Your task to perform on an android device: Go to Amazon Image 0: 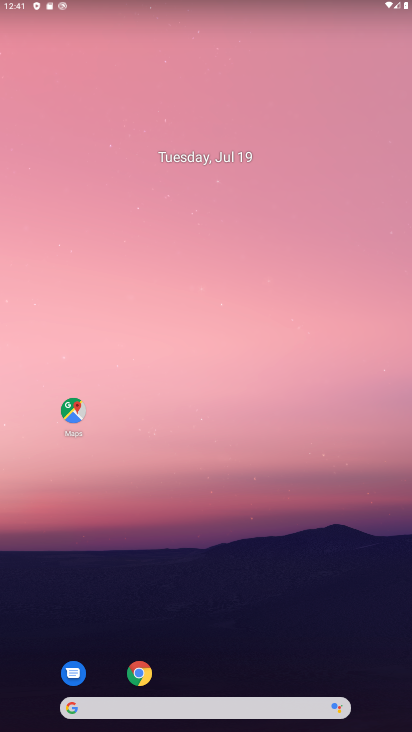
Step 0: drag from (194, 628) to (217, 172)
Your task to perform on an android device: Go to Amazon Image 1: 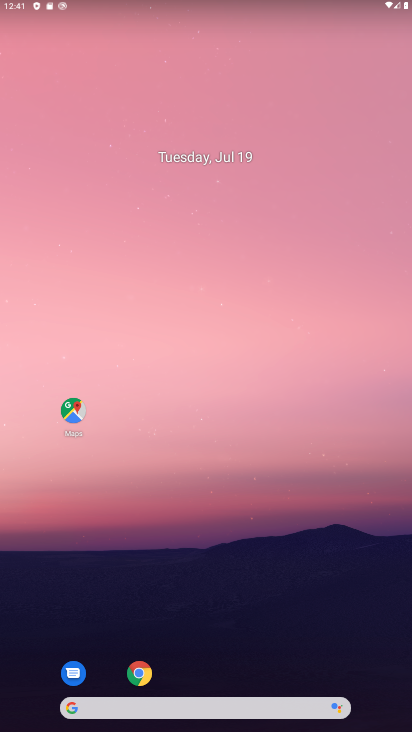
Step 1: drag from (233, 654) to (223, 266)
Your task to perform on an android device: Go to Amazon Image 2: 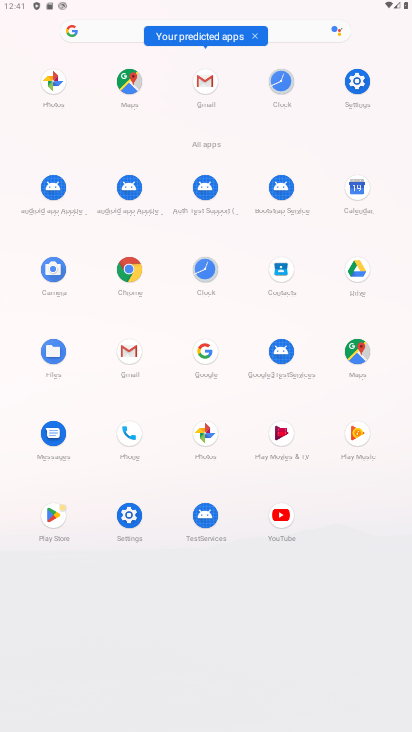
Step 2: click (127, 271)
Your task to perform on an android device: Go to Amazon Image 3: 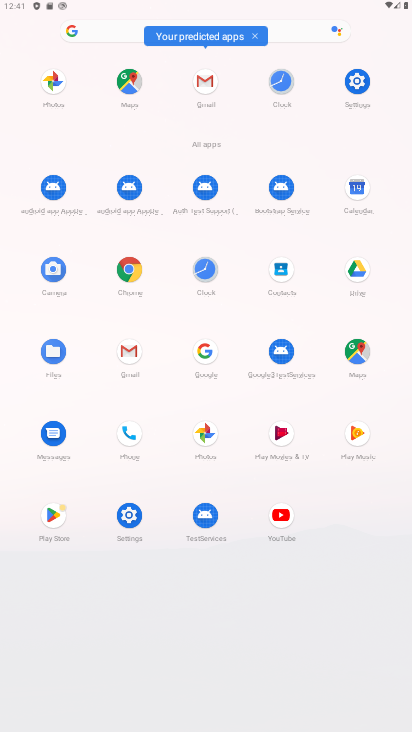
Step 3: click (123, 270)
Your task to perform on an android device: Go to Amazon Image 4: 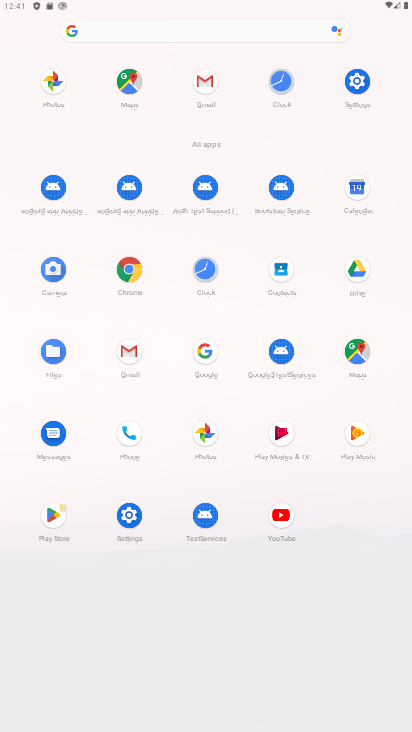
Step 4: click (123, 269)
Your task to perform on an android device: Go to Amazon Image 5: 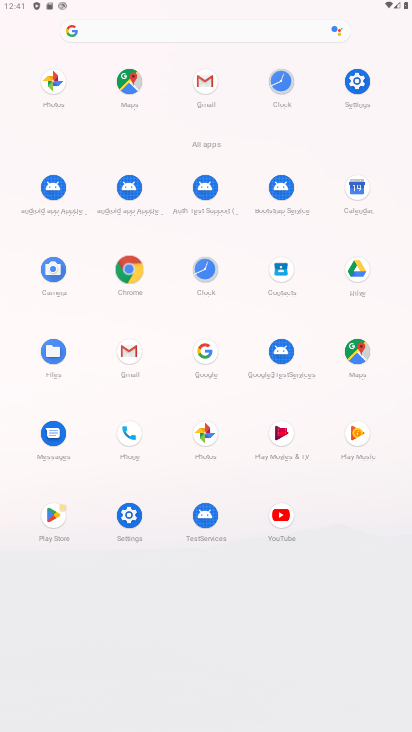
Step 5: click (125, 271)
Your task to perform on an android device: Go to Amazon Image 6: 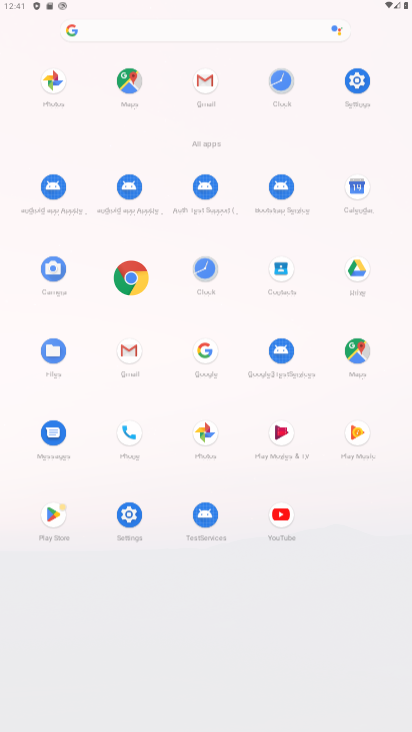
Step 6: click (125, 271)
Your task to perform on an android device: Go to Amazon Image 7: 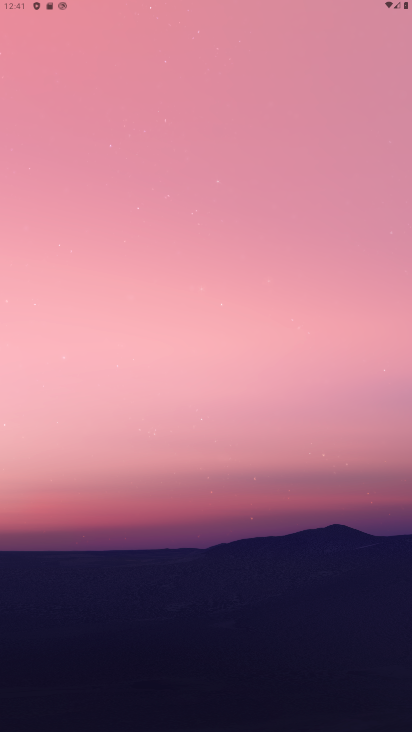
Step 7: click (128, 274)
Your task to perform on an android device: Go to Amazon Image 8: 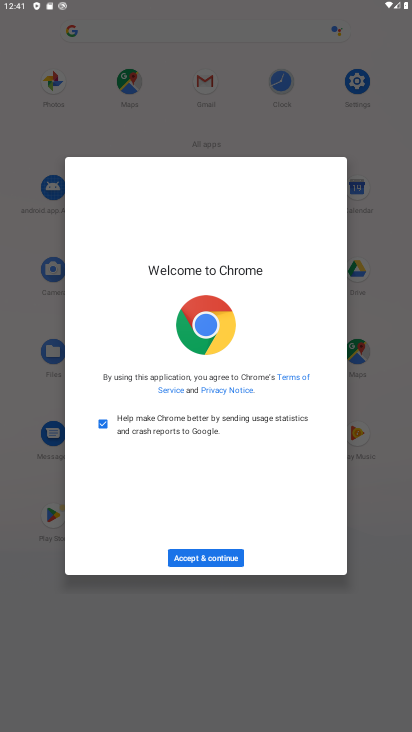
Step 8: click (204, 553)
Your task to perform on an android device: Go to Amazon Image 9: 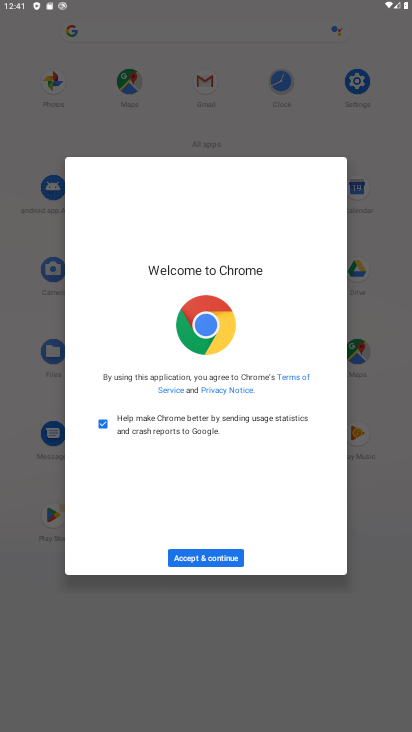
Step 9: click (209, 557)
Your task to perform on an android device: Go to Amazon Image 10: 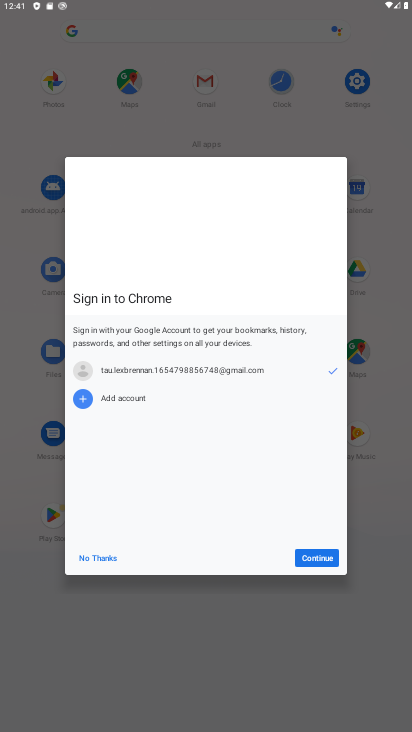
Step 10: click (215, 563)
Your task to perform on an android device: Go to Amazon Image 11: 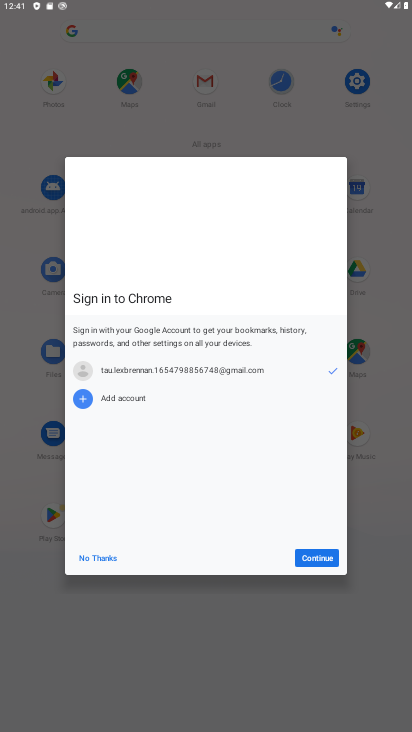
Step 11: click (215, 563)
Your task to perform on an android device: Go to Amazon Image 12: 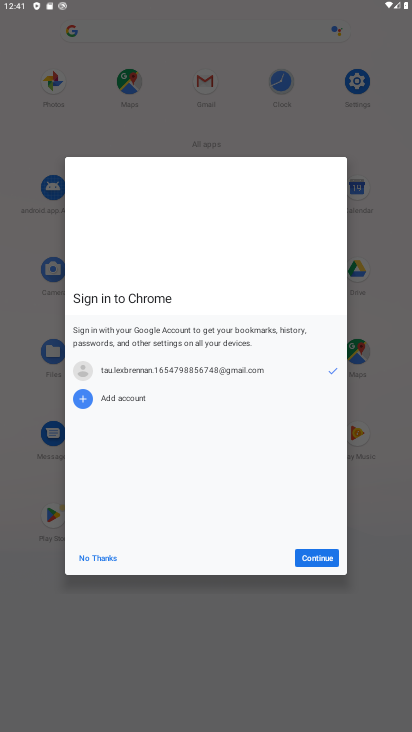
Step 12: click (229, 559)
Your task to perform on an android device: Go to Amazon Image 13: 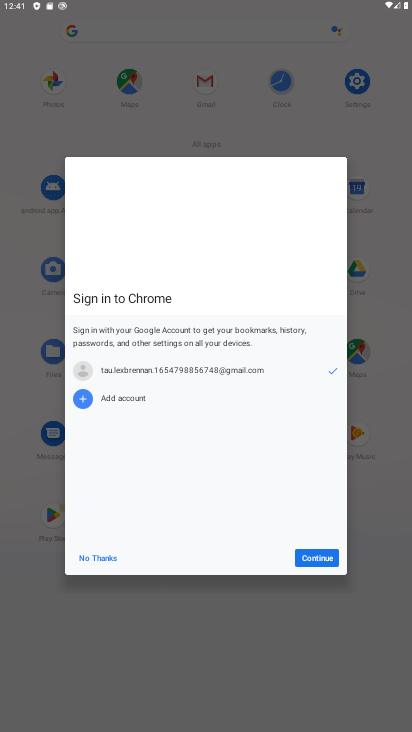
Step 13: click (320, 555)
Your task to perform on an android device: Go to Amazon Image 14: 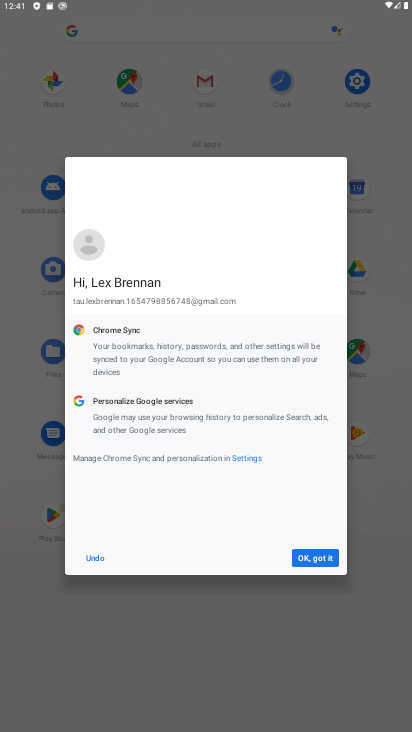
Step 14: click (322, 557)
Your task to perform on an android device: Go to Amazon Image 15: 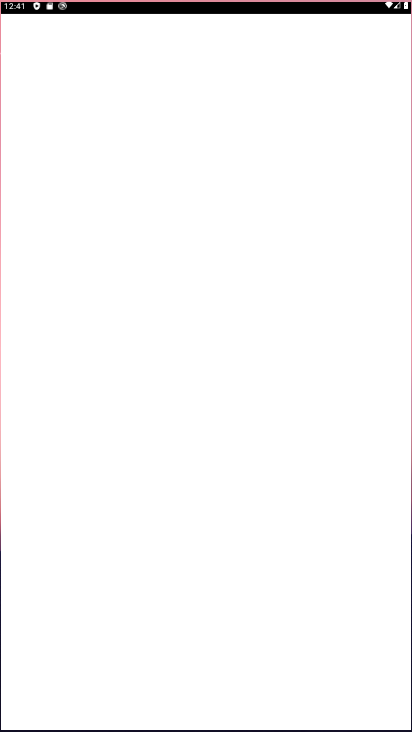
Step 15: click (317, 563)
Your task to perform on an android device: Go to Amazon Image 16: 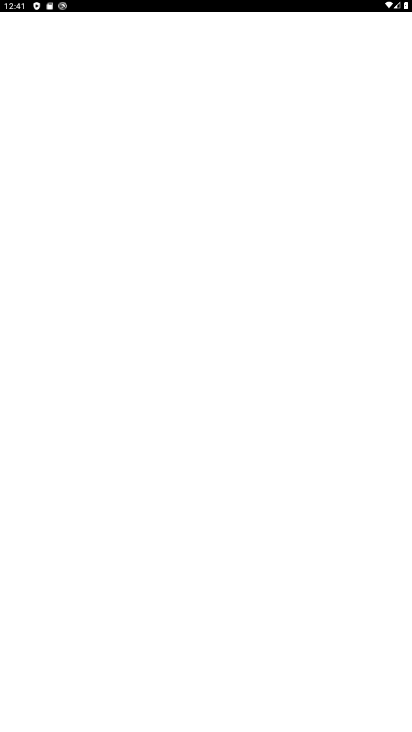
Step 16: click (317, 563)
Your task to perform on an android device: Go to Amazon Image 17: 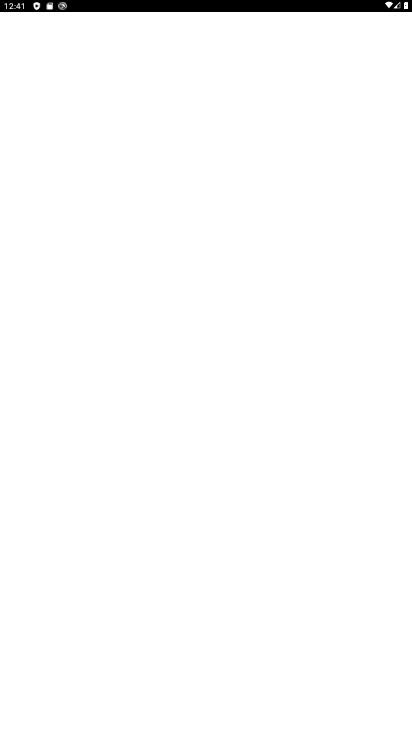
Step 17: click (317, 563)
Your task to perform on an android device: Go to Amazon Image 18: 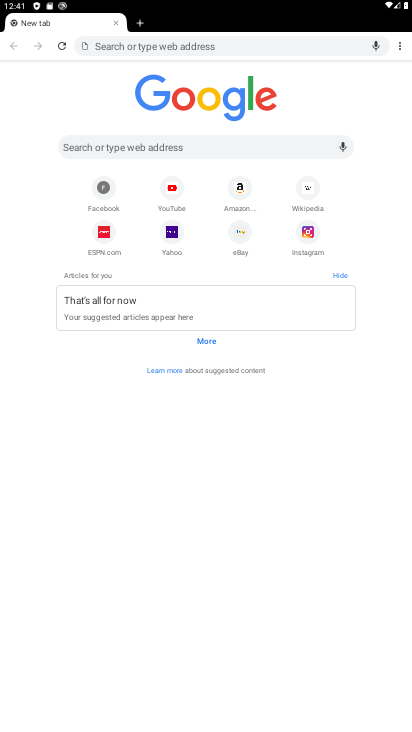
Step 18: click (232, 191)
Your task to perform on an android device: Go to Amazon Image 19: 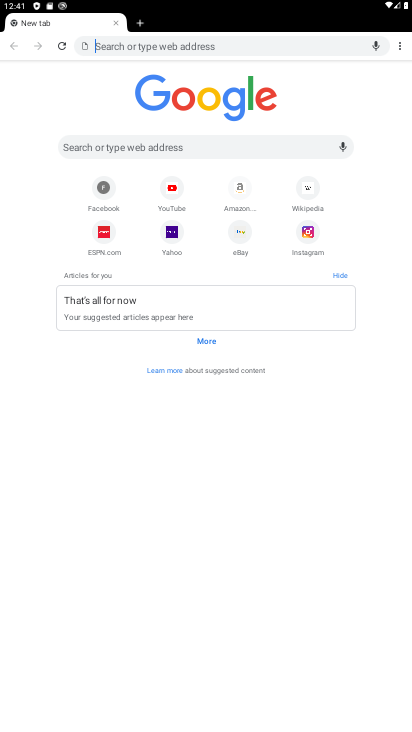
Step 19: click (232, 191)
Your task to perform on an android device: Go to Amazon Image 20: 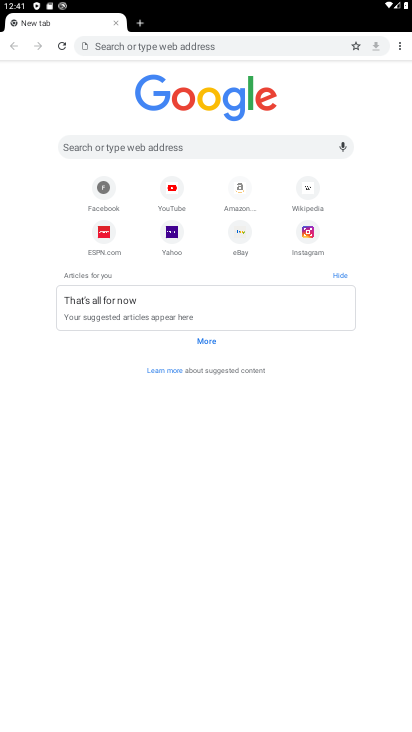
Step 20: click (239, 192)
Your task to perform on an android device: Go to Amazon Image 21: 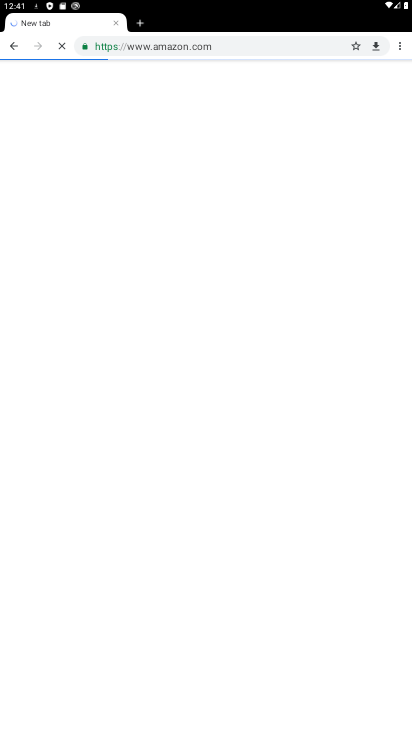
Step 21: task complete